Your task to perform on an android device: Open my contact list Image 0: 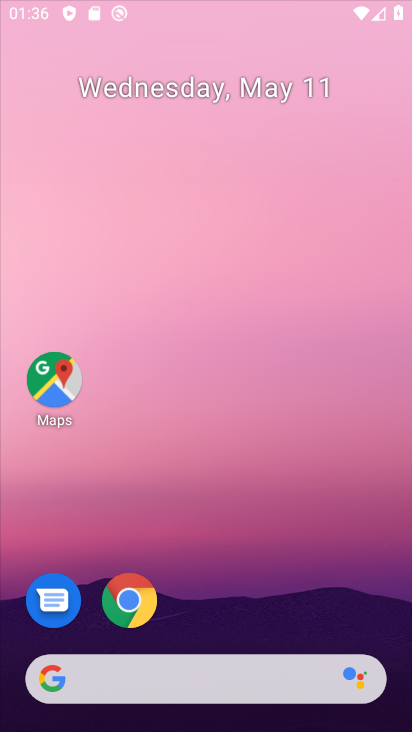
Step 0: drag from (297, 402) to (299, 313)
Your task to perform on an android device: Open my contact list Image 1: 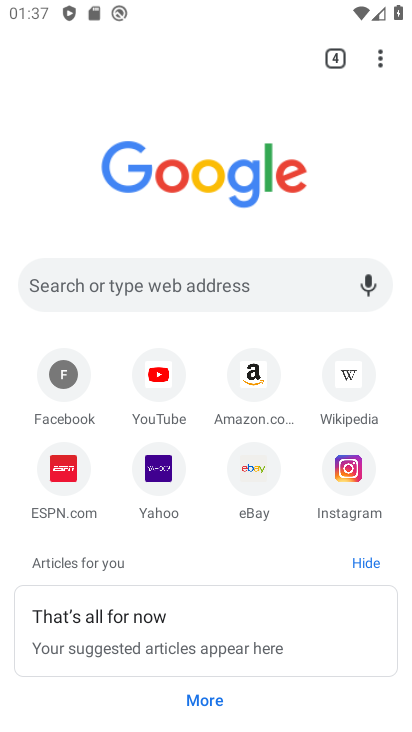
Step 1: press home button
Your task to perform on an android device: Open my contact list Image 2: 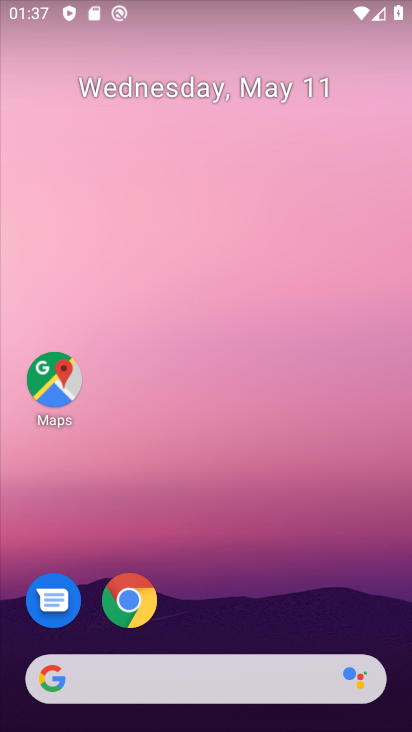
Step 2: drag from (254, 525) to (254, 275)
Your task to perform on an android device: Open my contact list Image 3: 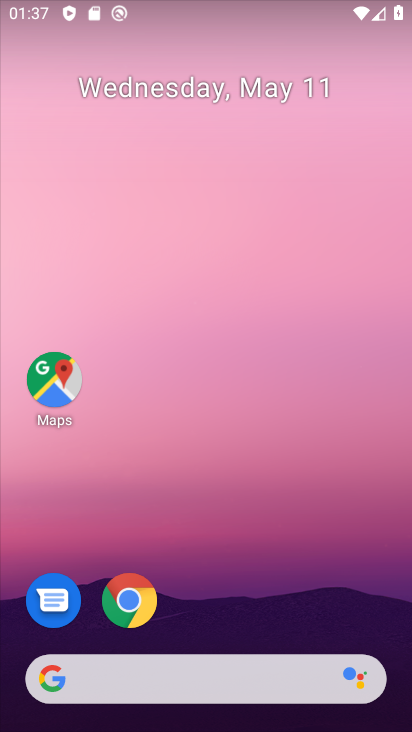
Step 3: drag from (253, 566) to (283, 157)
Your task to perform on an android device: Open my contact list Image 4: 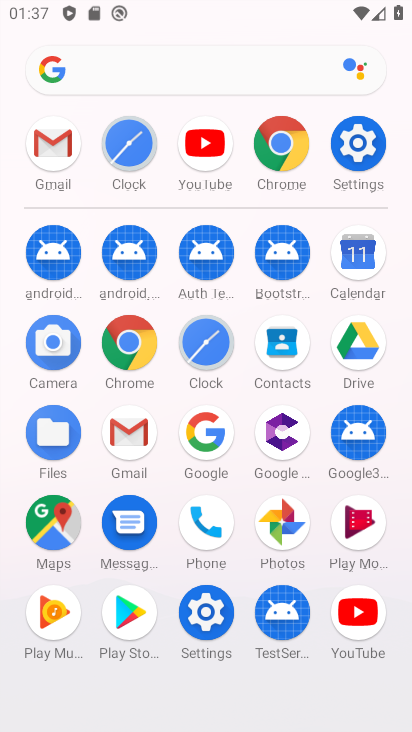
Step 4: click (207, 516)
Your task to perform on an android device: Open my contact list Image 5: 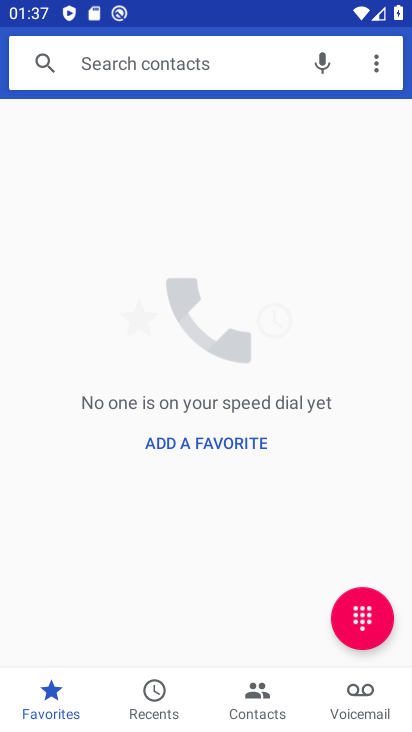
Step 5: click (261, 699)
Your task to perform on an android device: Open my contact list Image 6: 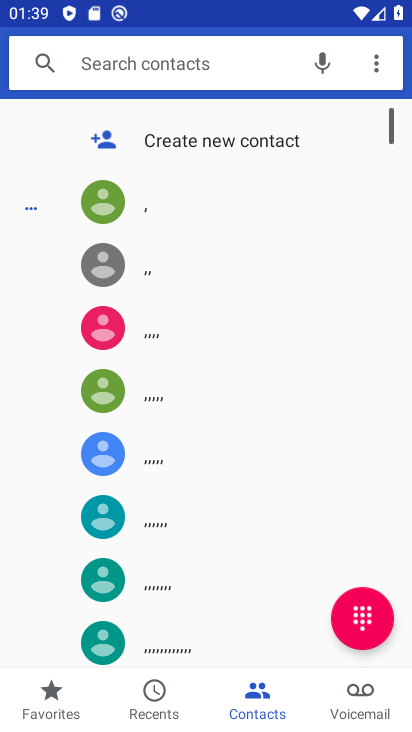
Step 6: task complete